Your task to perform on an android device: toggle location history Image 0: 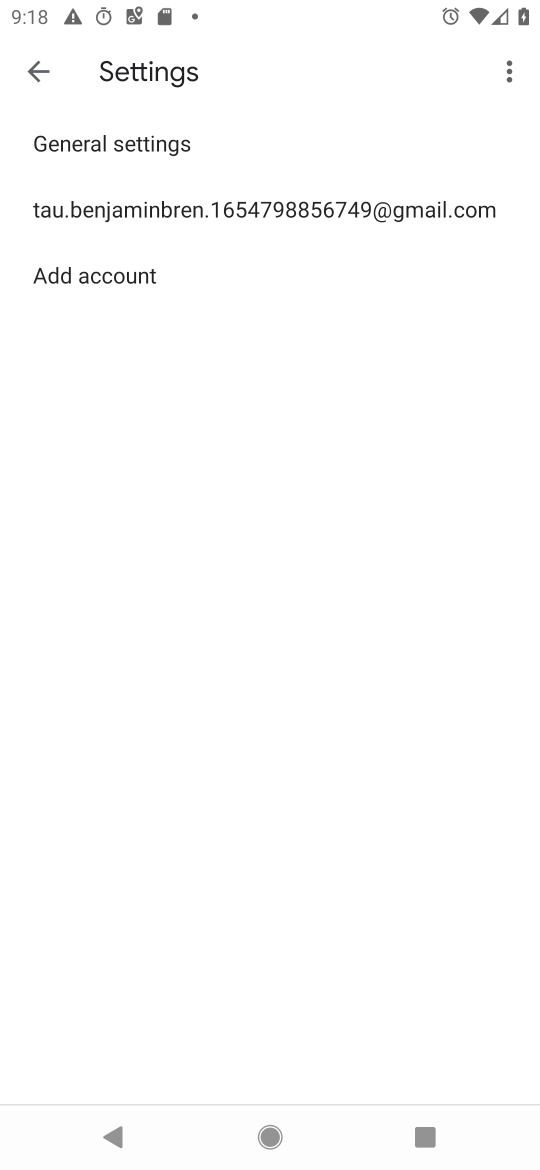
Step 0: drag from (257, 747) to (323, 380)
Your task to perform on an android device: toggle location history Image 1: 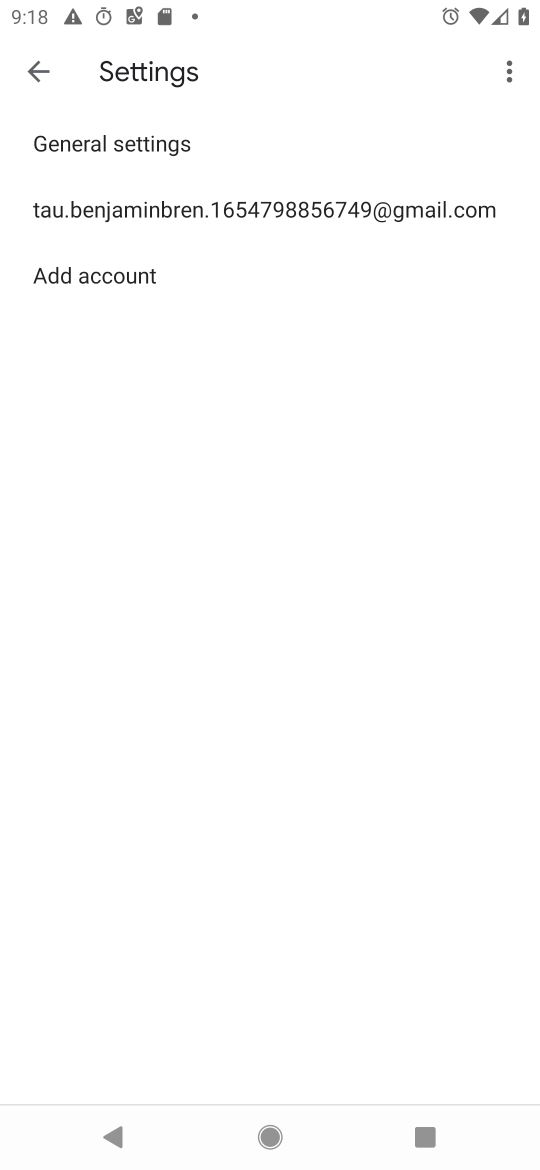
Step 1: press home button
Your task to perform on an android device: toggle location history Image 2: 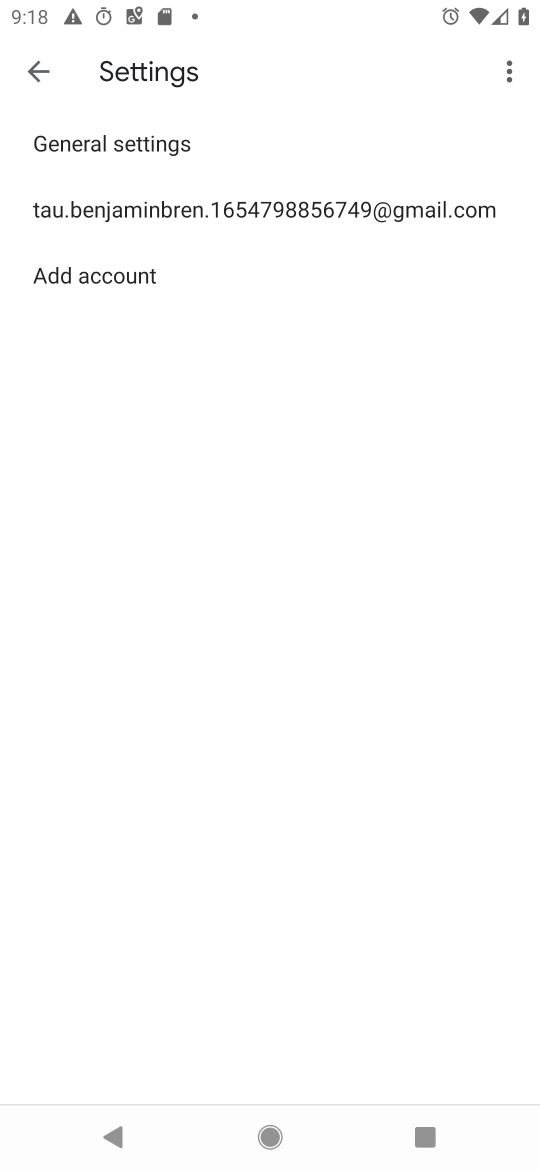
Step 2: drag from (299, 750) to (339, 9)
Your task to perform on an android device: toggle location history Image 3: 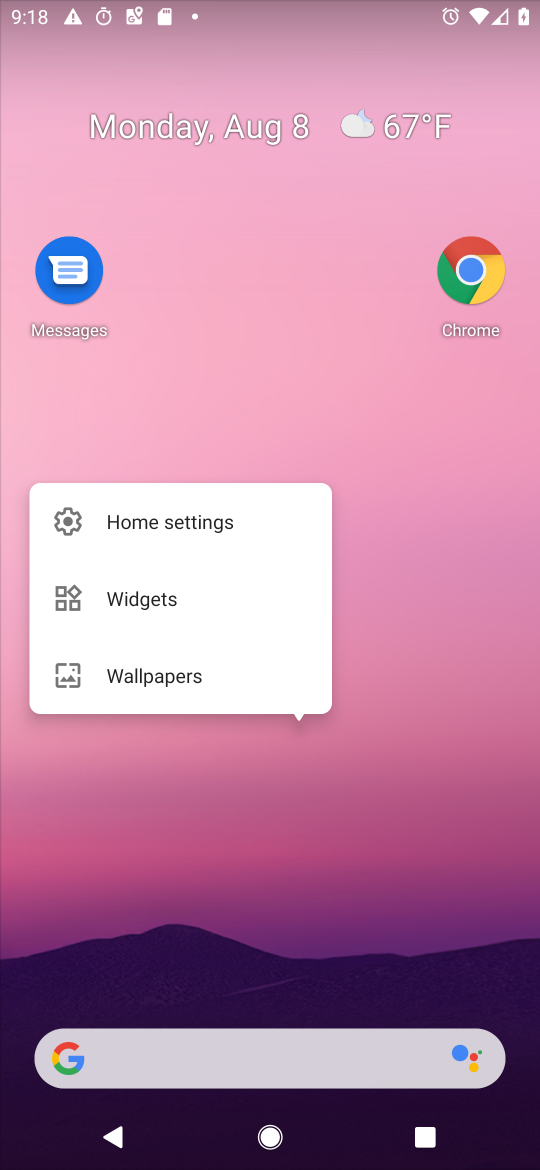
Step 3: drag from (316, 737) to (426, 330)
Your task to perform on an android device: toggle location history Image 4: 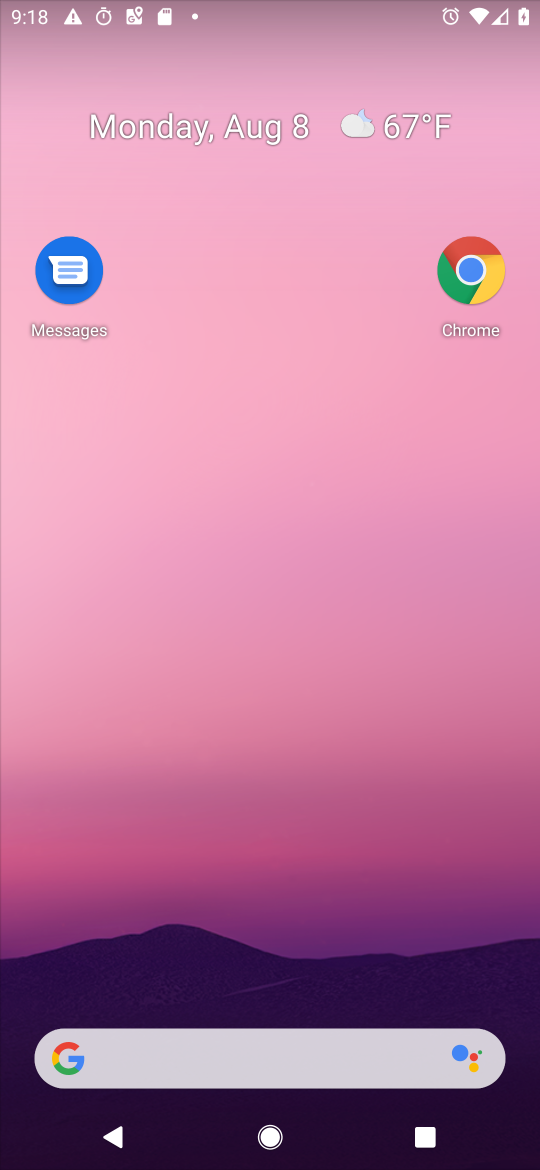
Step 4: drag from (324, 875) to (348, 43)
Your task to perform on an android device: toggle location history Image 5: 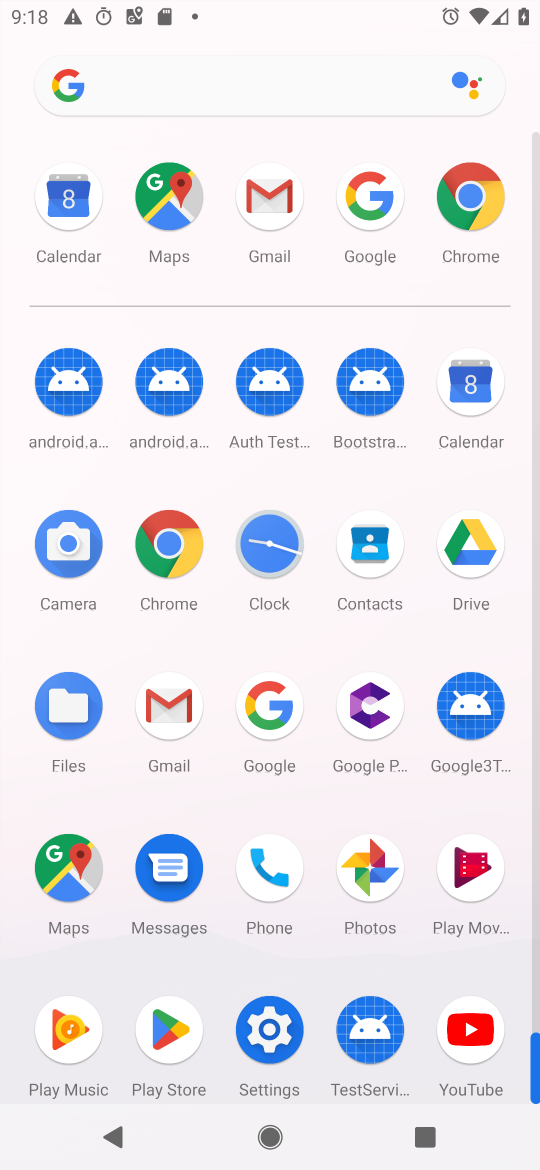
Step 5: drag from (244, 892) to (224, 78)
Your task to perform on an android device: toggle location history Image 6: 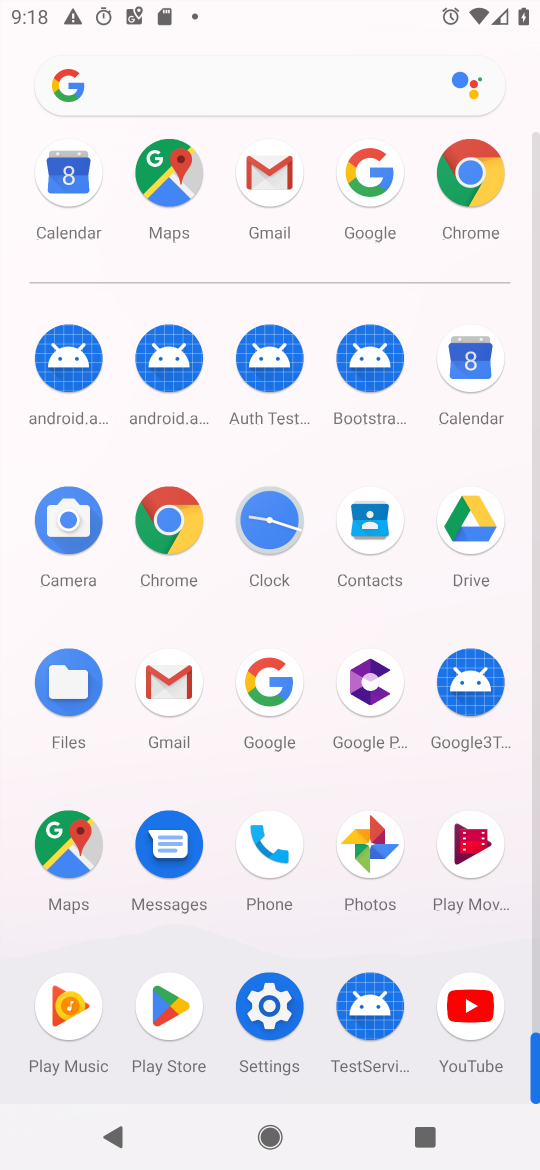
Step 6: drag from (279, 895) to (325, 95)
Your task to perform on an android device: toggle location history Image 7: 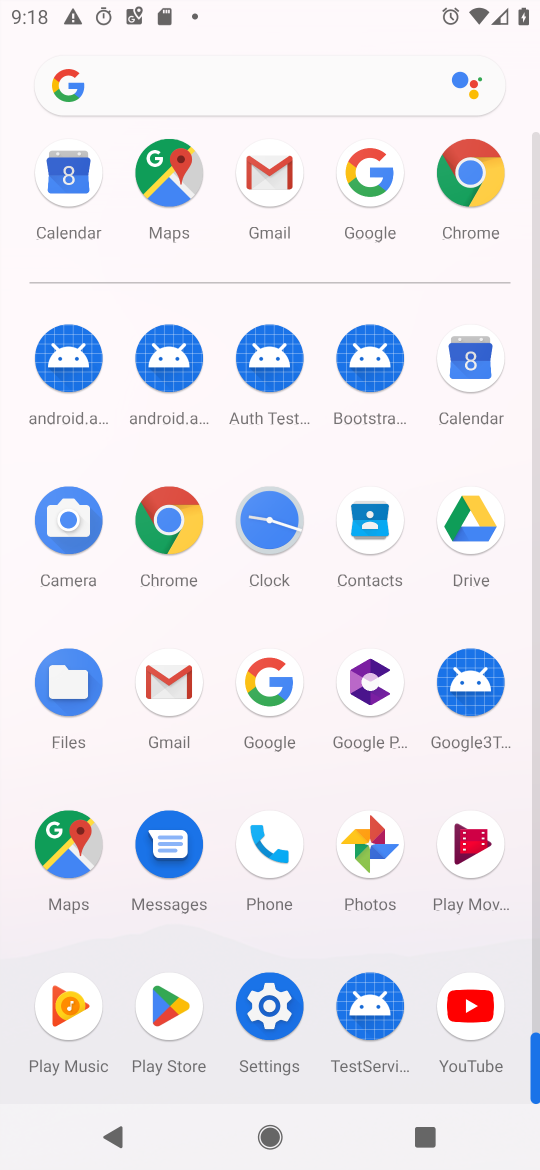
Step 7: drag from (291, 968) to (399, 403)
Your task to perform on an android device: toggle location history Image 8: 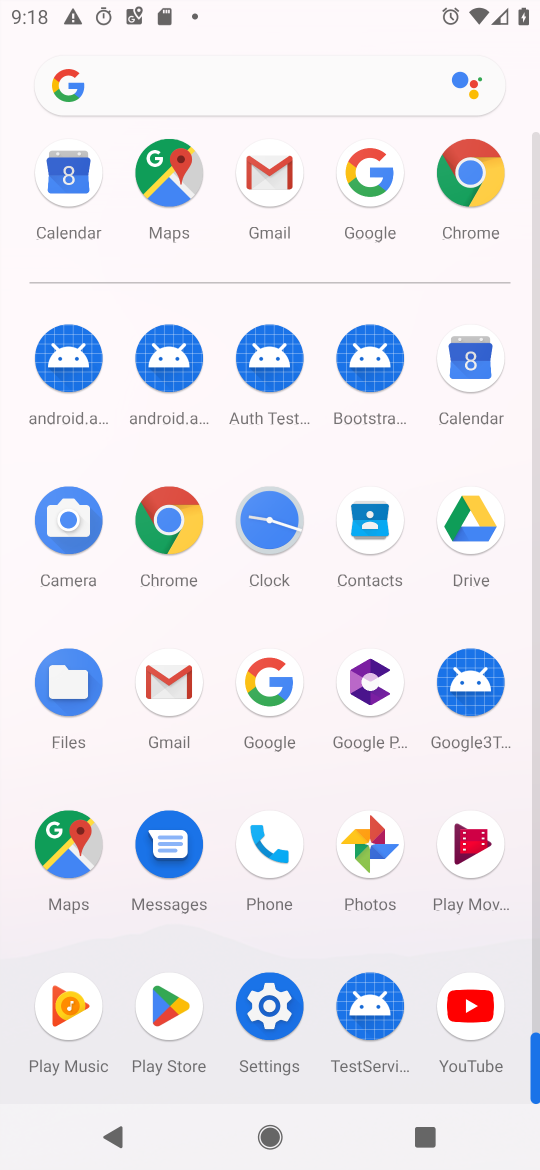
Step 8: click (253, 1008)
Your task to perform on an android device: toggle location history Image 9: 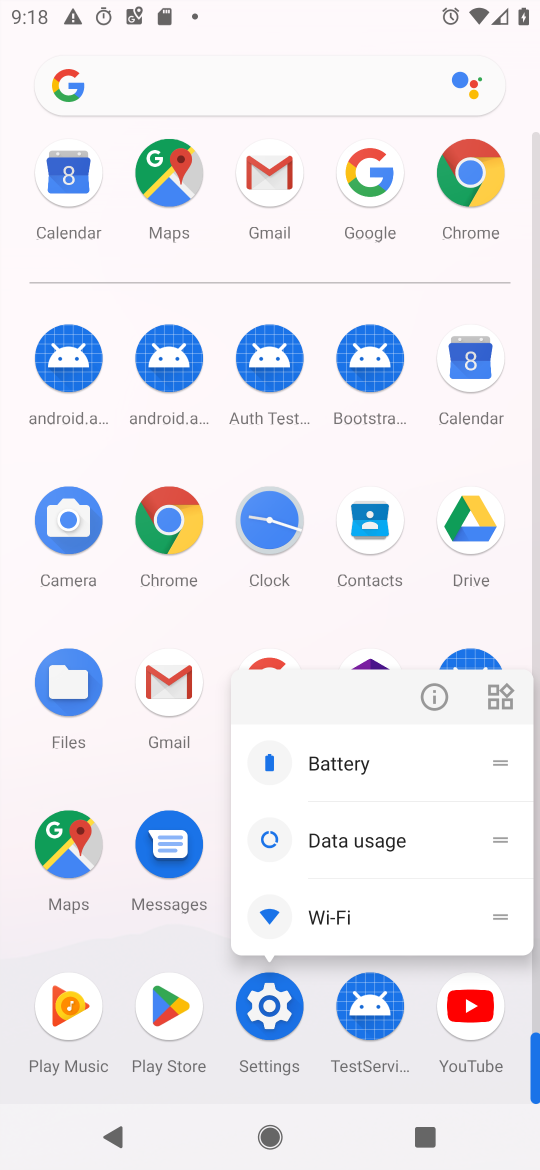
Step 9: click (435, 683)
Your task to perform on an android device: toggle location history Image 10: 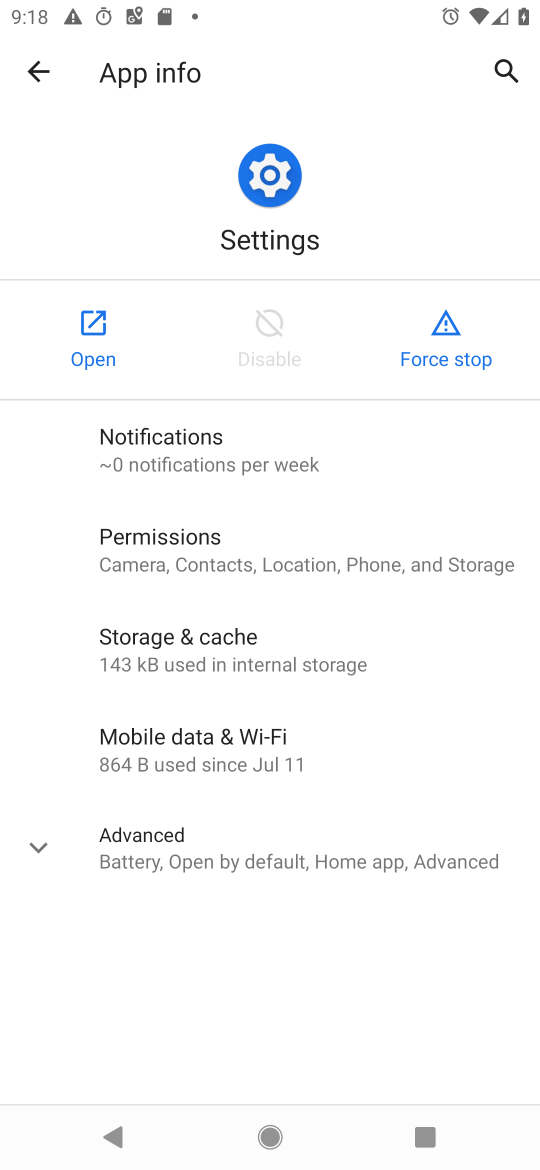
Step 10: click (101, 349)
Your task to perform on an android device: toggle location history Image 11: 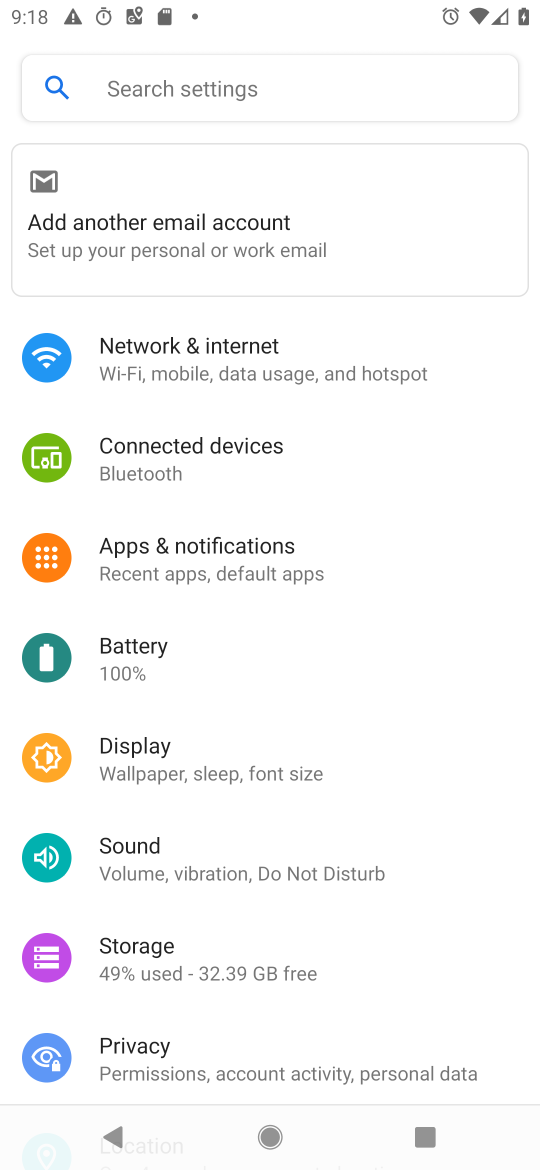
Step 11: drag from (177, 795) to (333, 336)
Your task to perform on an android device: toggle location history Image 12: 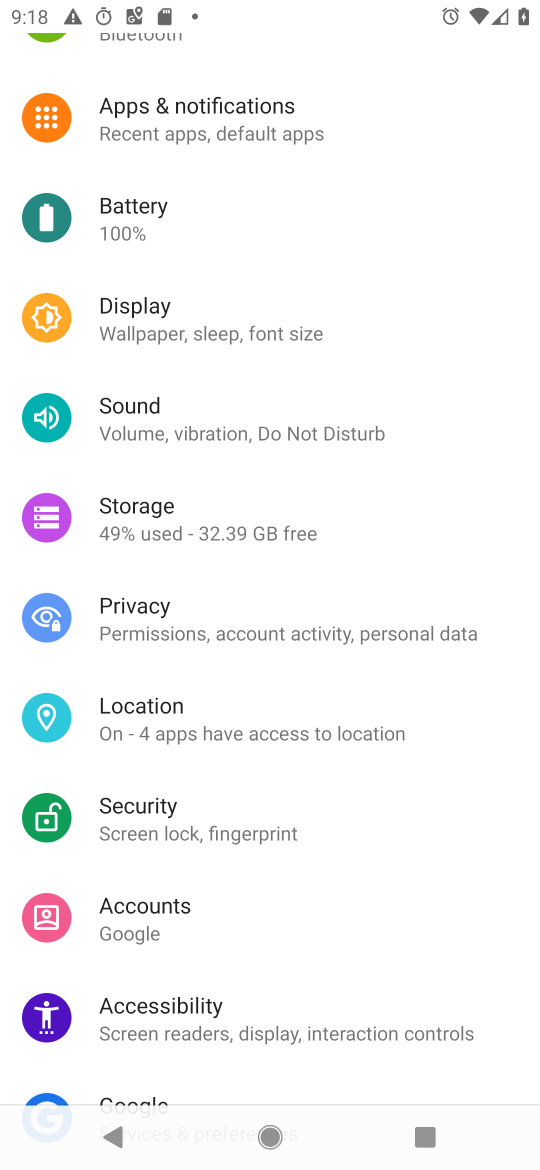
Step 12: drag from (266, 1053) to (333, 676)
Your task to perform on an android device: toggle location history Image 13: 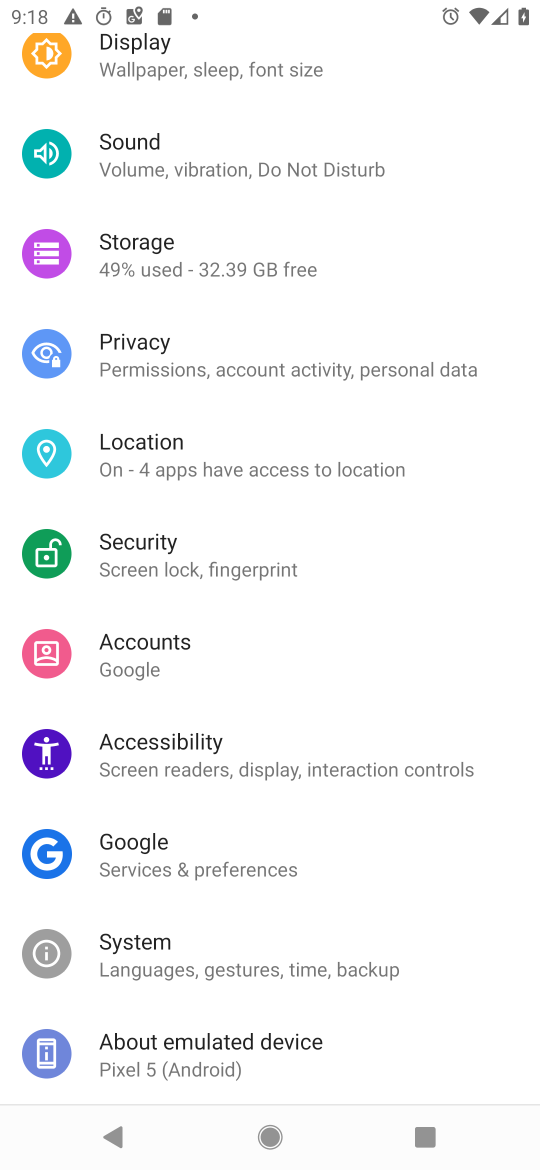
Step 13: click (261, 451)
Your task to perform on an android device: toggle location history Image 14: 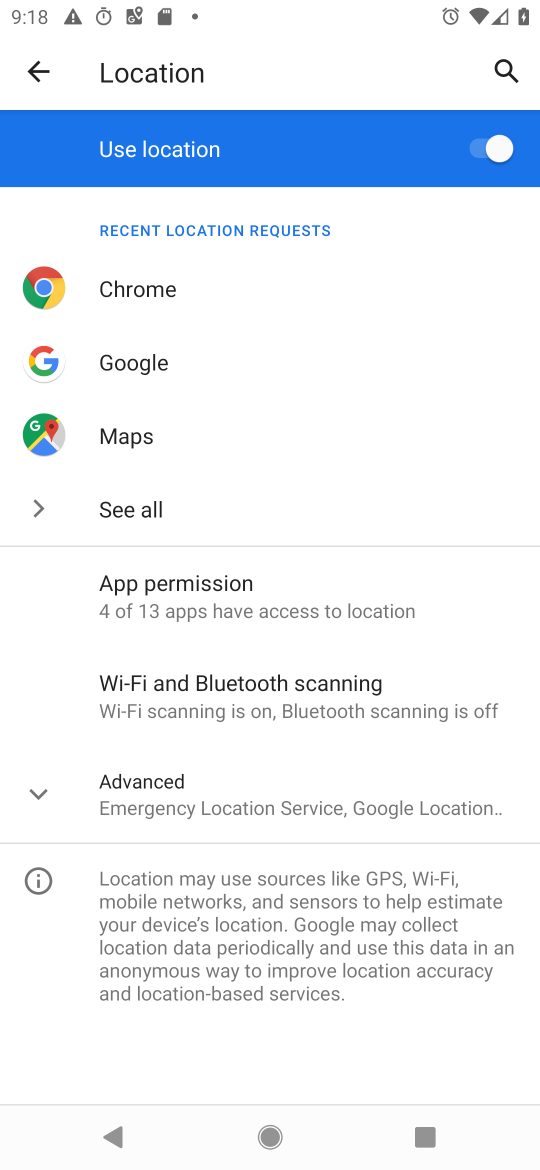
Step 14: click (99, 787)
Your task to perform on an android device: toggle location history Image 15: 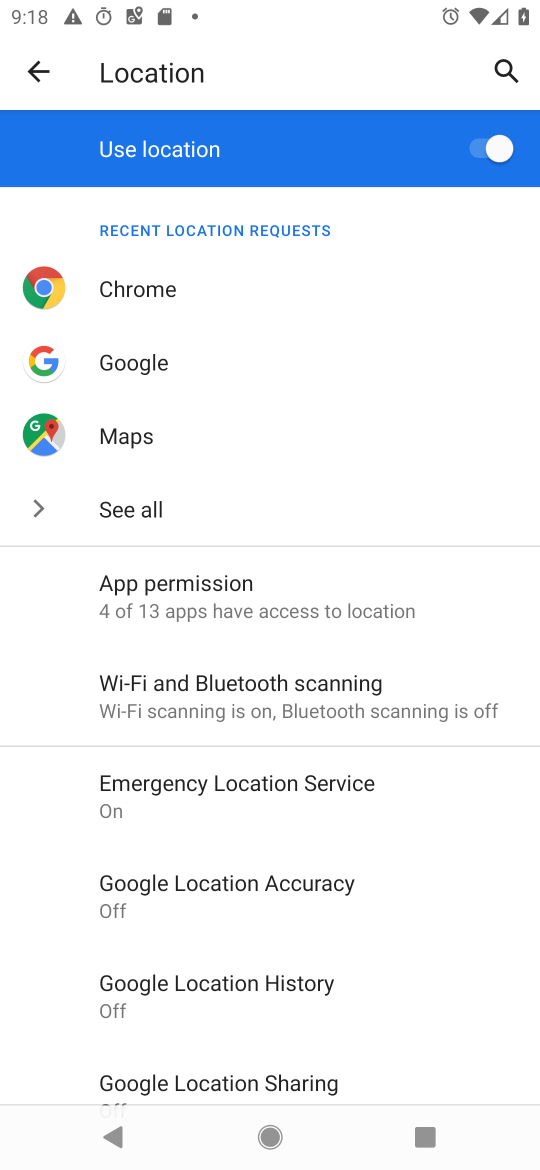
Step 15: click (278, 1014)
Your task to perform on an android device: toggle location history Image 16: 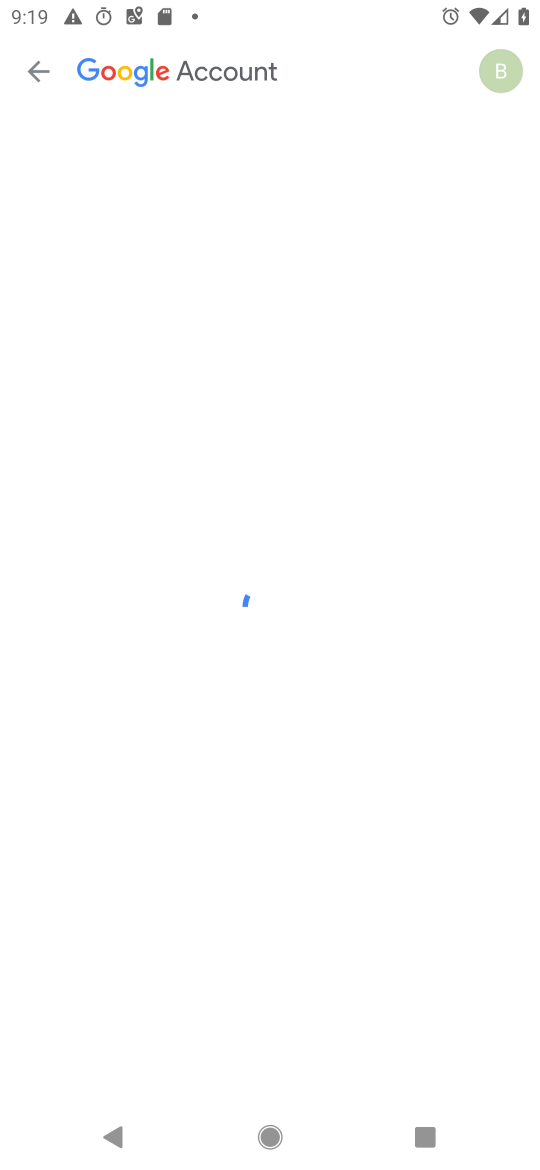
Step 16: drag from (220, 464) to (538, 718)
Your task to perform on an android device: toggle location history Image 17: 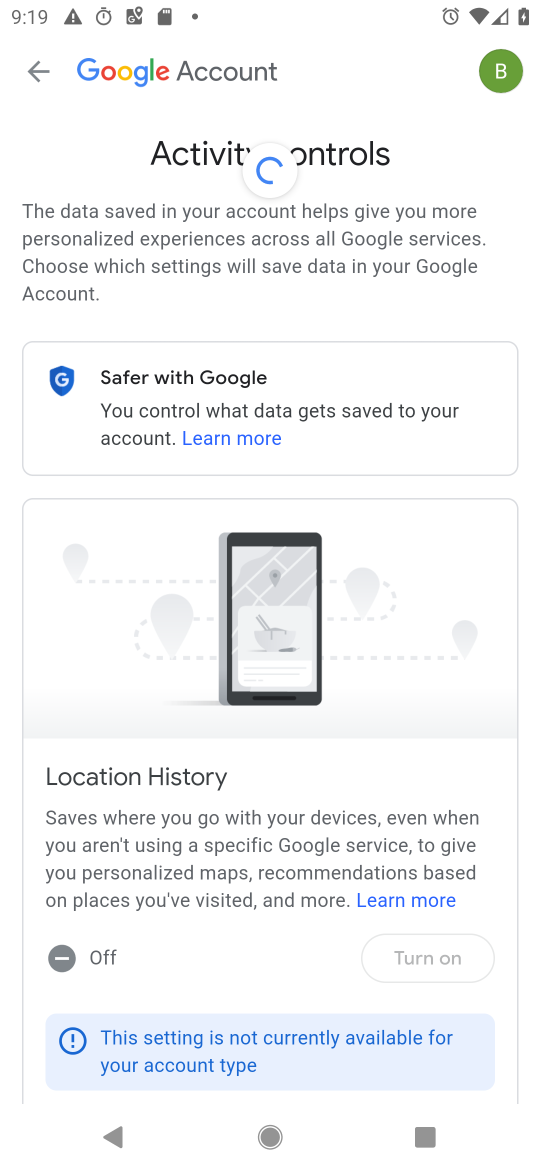
Step 17: click (251, 673)
Your task to perform on an android device: toggle location history Image 18: 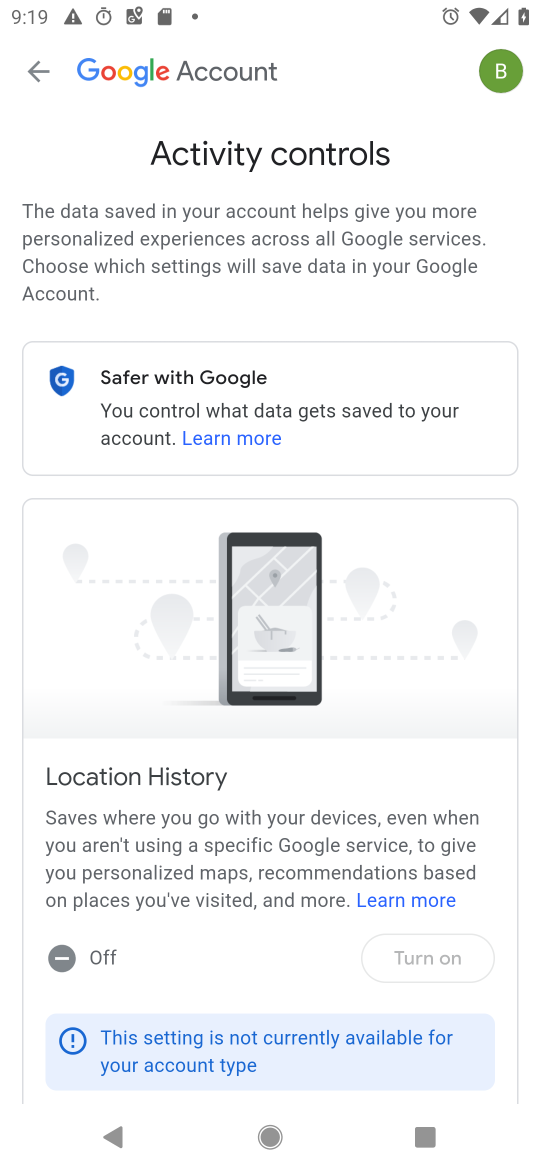
Step 18: task complete